Your task to perform on an android device: Go to eBay Image 0: 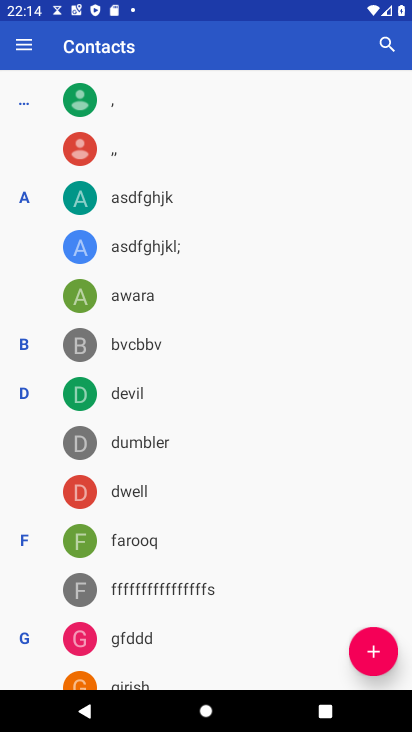
Step 0: press home button
Your task to perform on an android device: Go to eBay Image 1: 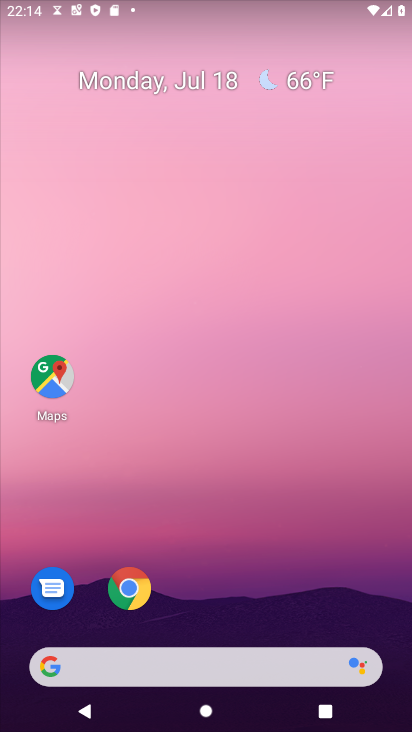
Step 1: click (134, 593)
Your task to perform on an android device: Go to eBay Image 2: 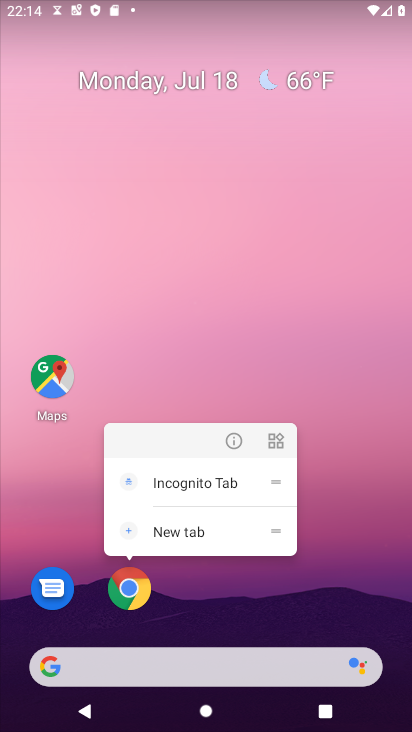
Step 2: click (125, 591)
Your task to perform on an android device: Go to eBay Image 3: 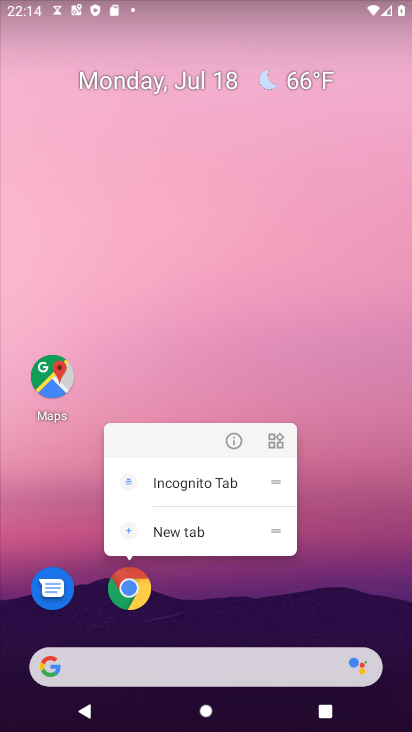
Step 3: click (125, 591)
Your task to perform on an android device: Go to eBay Image 4: 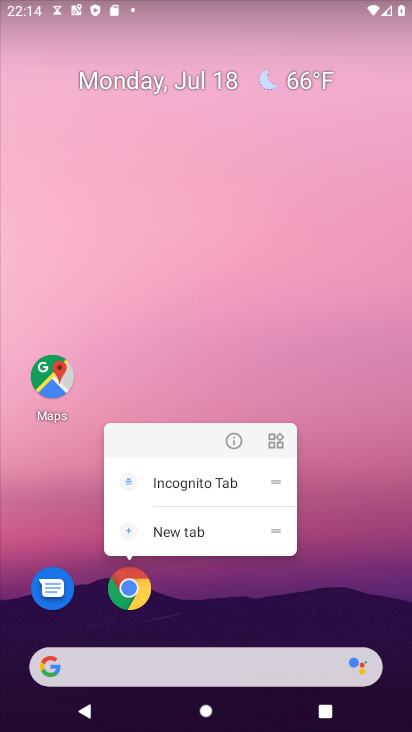
Step 4: click (131, 587)
Your task to perform on an android device: Go to eBay Image 5: 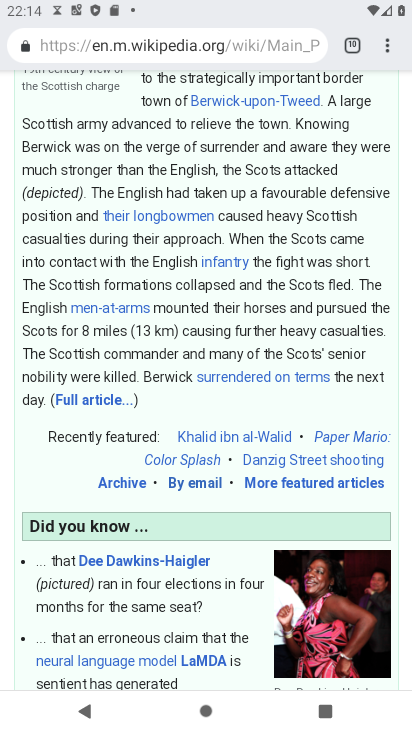
Step 5: drag from (382, 42) to (314, 76)
Your task to perform on an android device: Go to eBay Image 6: 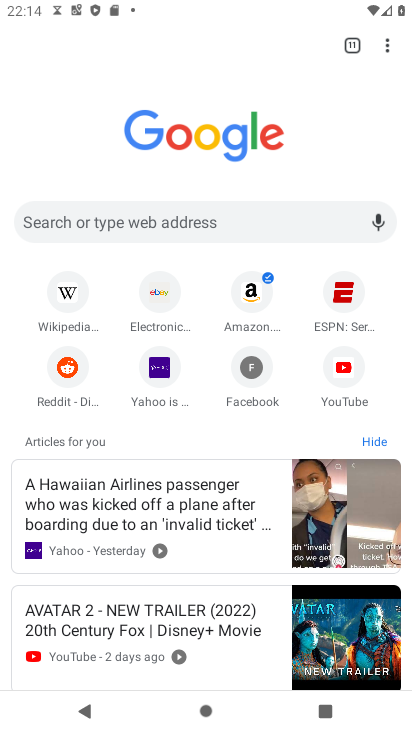
Step 6: click (70, 214)
Your task to perform on an android device: Go to eBay Image 7: 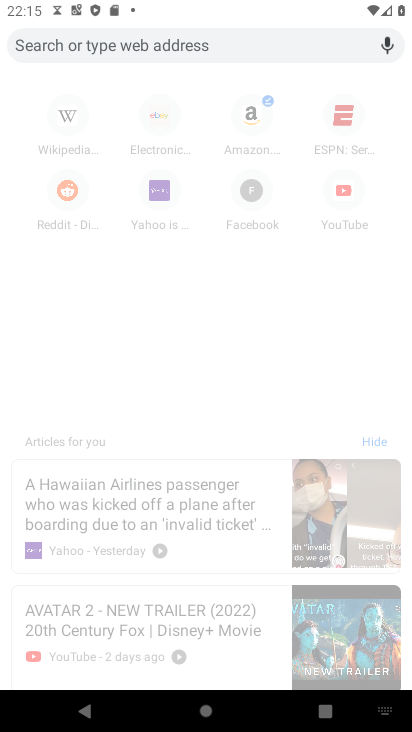
Step 7: type "ebay"
Your task to perform on an android device: Go to eBay Image 8: 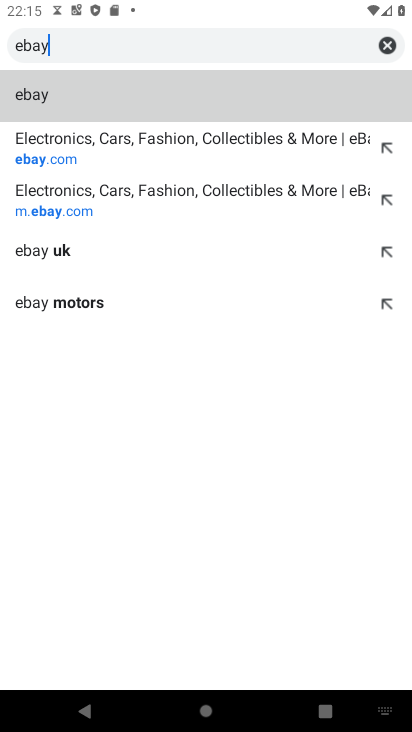
Step 8: click (214, 147)
Your task to perform on an android device: Go to eBay Image 9: 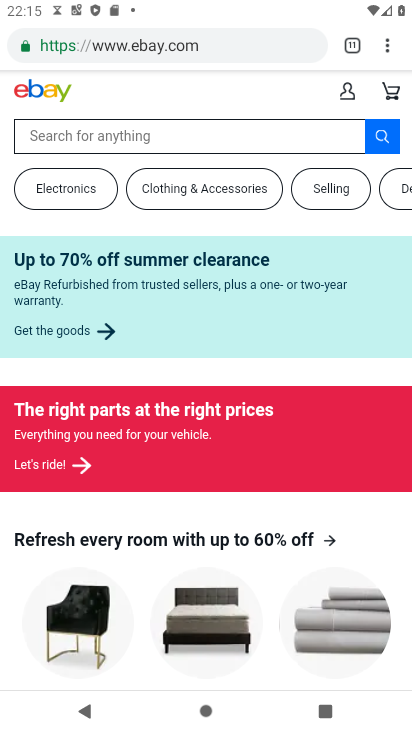
Step 9: task complete